Your task to perform on an android device: Set the phone to "Do not disturb". Image 0: 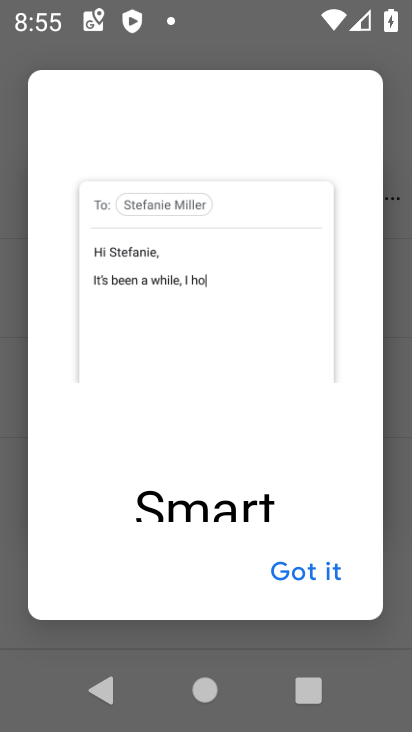
Step 0: press home button
Your task to perform on an android device: Set the phone to "Do not disturb". Image 1: 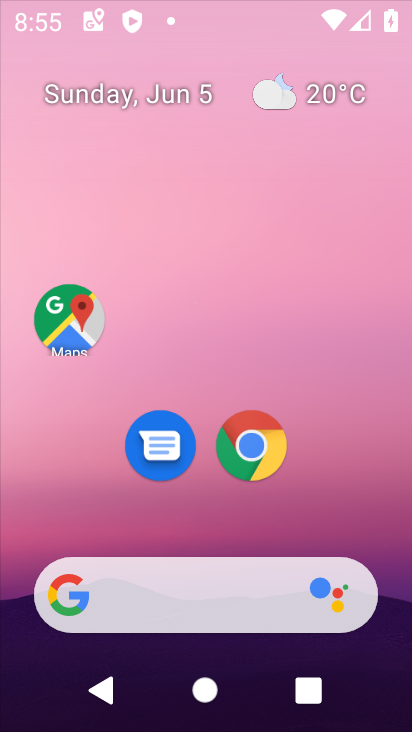
Step 1: drag from (323, 616) to (354, 25)
Your task to perform on an android device: Set the phone to "Do not disturb". Image 2: 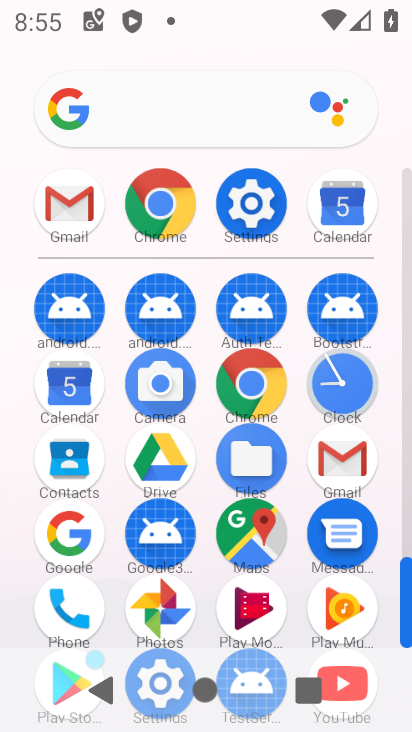
Step 2: click (282, 223)
Your task to perform on an android device: Set the phone to "Do not disturb". Image 3: 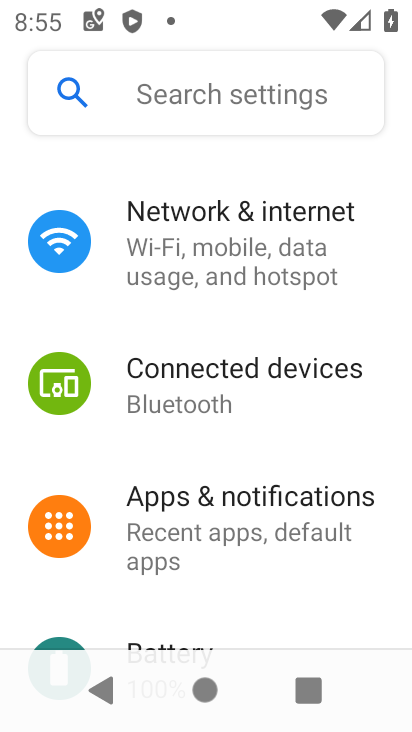
Step 3: drag from (280, 609) to (314, 16)
Your task to perform on an android device: Set the phone to "Do not disturb". Image 4: 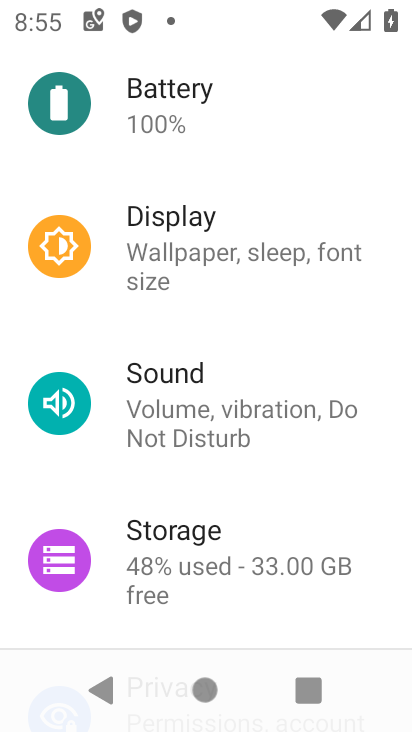
Step 4: drag from (311, 575) to (308, 396)
Your task to perform on an android device: Set the phone to "Do not disturb". Image 5: 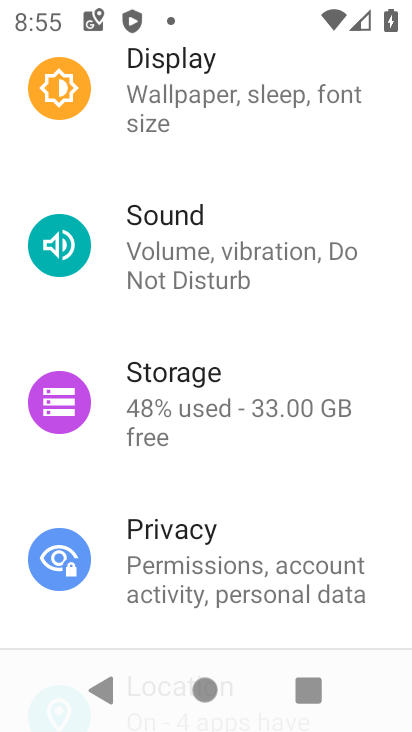
Step 5: click (265, 258)
Your task to perform on an android device: Set the phone to "Do not disturb". Image 6: 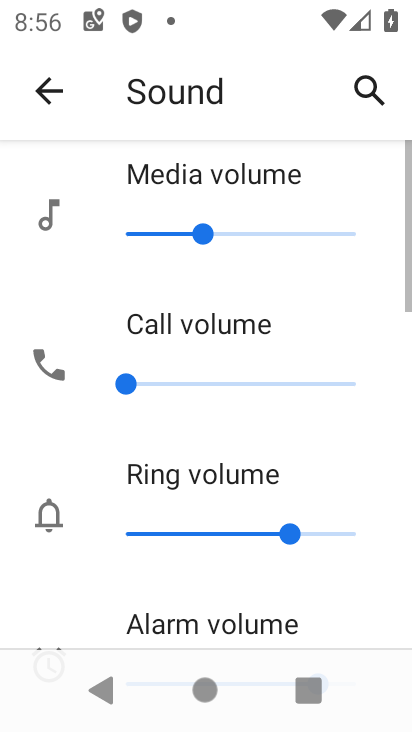
Step 6: drag from (279, 637) to (331, 71)
Your task to perform on an android device: Set the phone to "Do not disturb". Image 7: 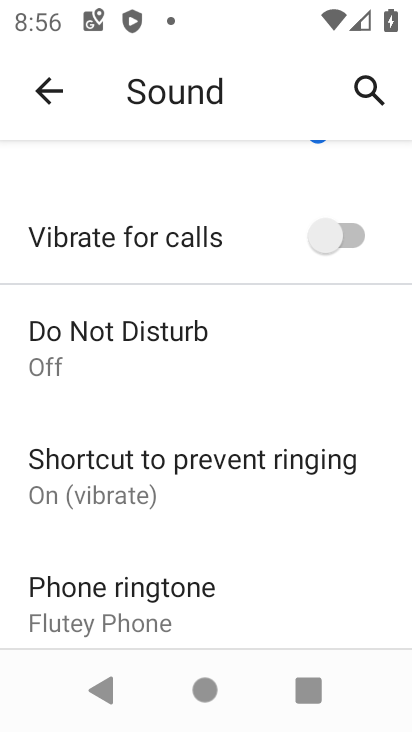
Step 7: click (155, 359)
Your task to perform on an android device: Set the phone to "Do not disturb". Image 8: 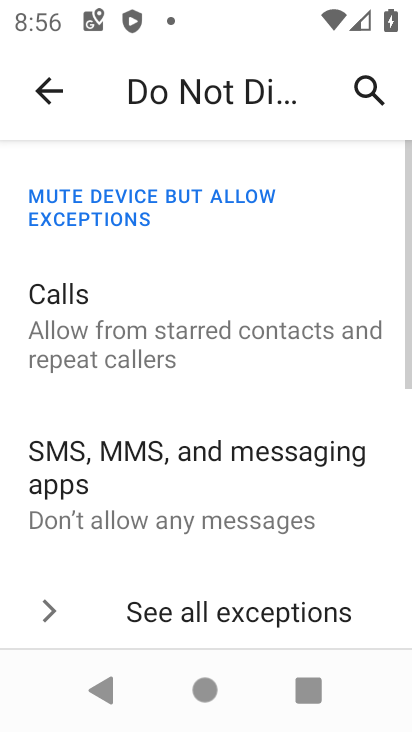
Step 8: drag from (275, 623) to (340, 109)
Your task to perform on an android device: Set the phone to "Do not disturb". Image 9: 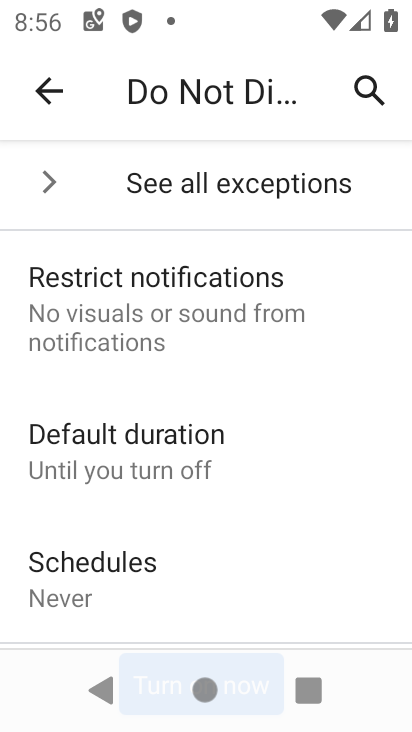
Step 9: drag from (222, 573) to (146, 75)
Your task to perform on an android device: Set the phone to "Do not disturb". Image 10: 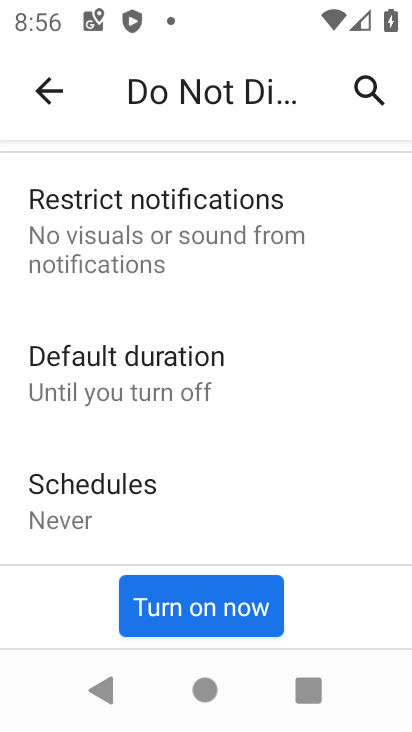
Step 10: click (224, 592)
Your task to perform on an android device: Set the phone to "Do not disturb". Image 11: 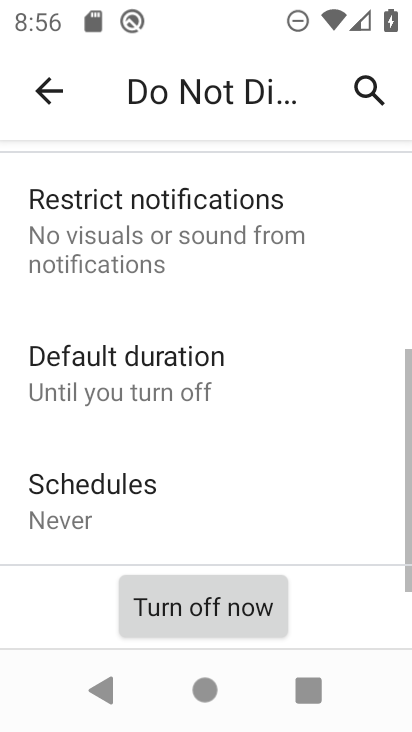
Step 11: task complete